Your task to perform on an android device: What is the recent news? Image 0: 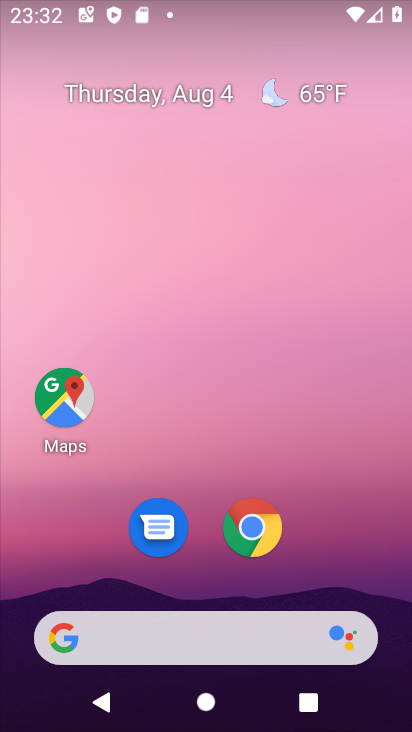
Step 0: click (223, 634)
Your task to perform on an android device: What is the recent news? Image 1: 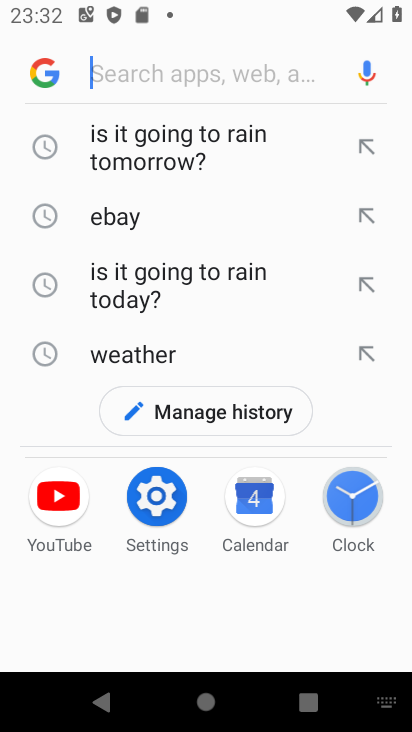
Step 1: type "recent news"
Your task to perform on an android device: What is the recent news? Image 2: 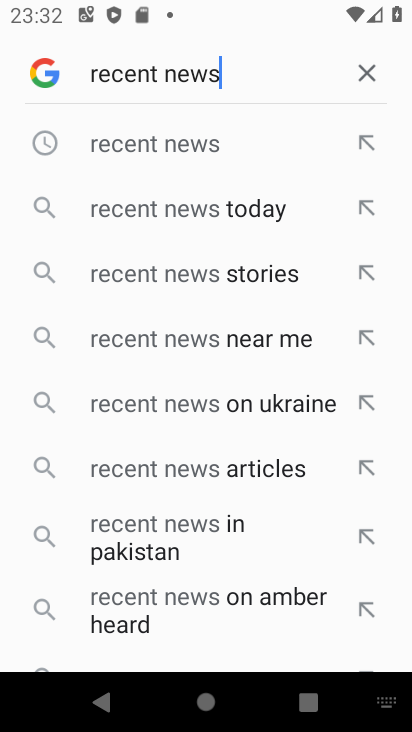
Step 2: type ""
Your task to perform on an android device: What is the recent news? Image 3: 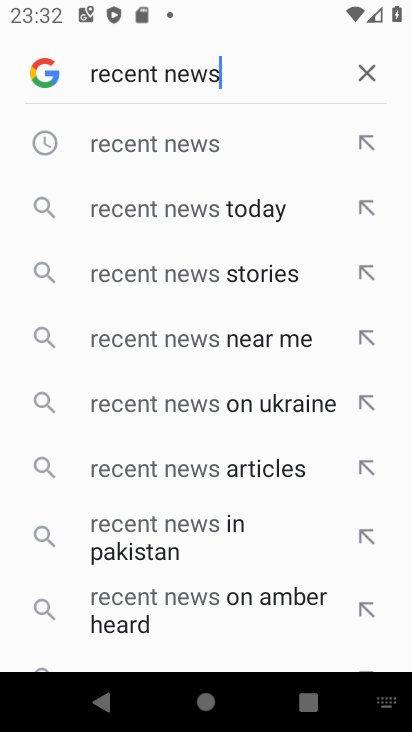
Step 3: click (213, 148)
Your task to perform on an android device: What is the recent news? Image 4: 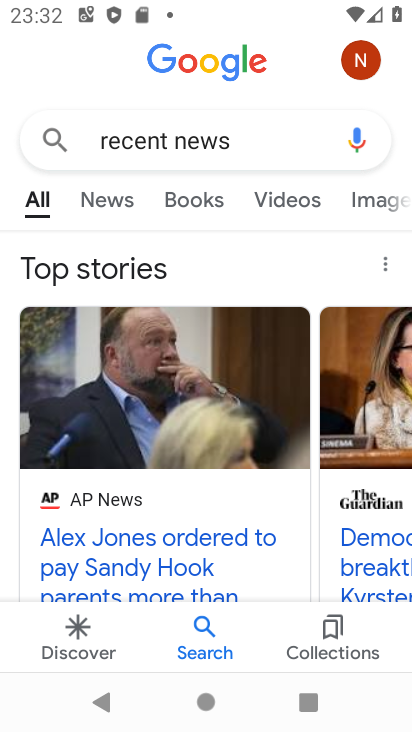
Step 4: task complete